Your task to perform on an android device: Open the Play Movies app and select the watchlist tab. Image 0: 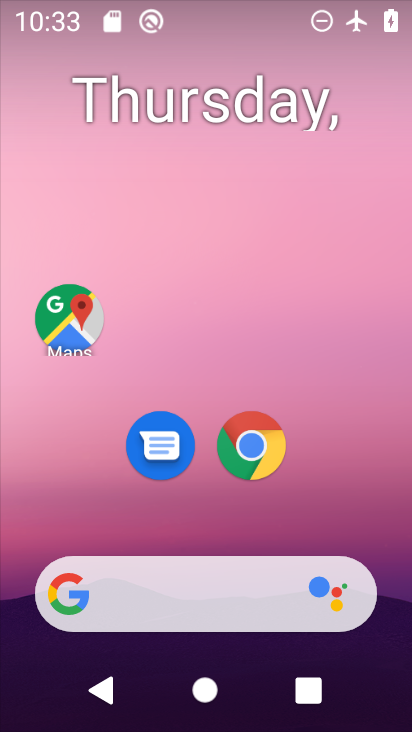
Step 0: drag from (201, 524) to (406, 8)
Your task to perform on an android device: Open the Play Movies app and select the watchlist tab. Image 1: 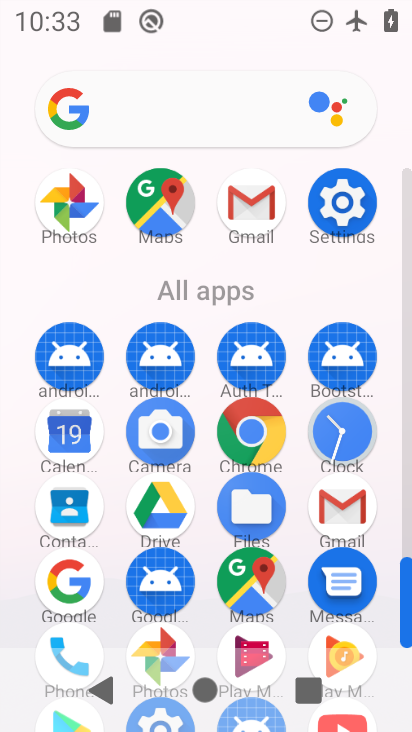
Step 1: drag from (209, 554) to (159, 225)
Your task to perform on an android device: Open the Play Movies app and select the watchlist tab. Image 2: 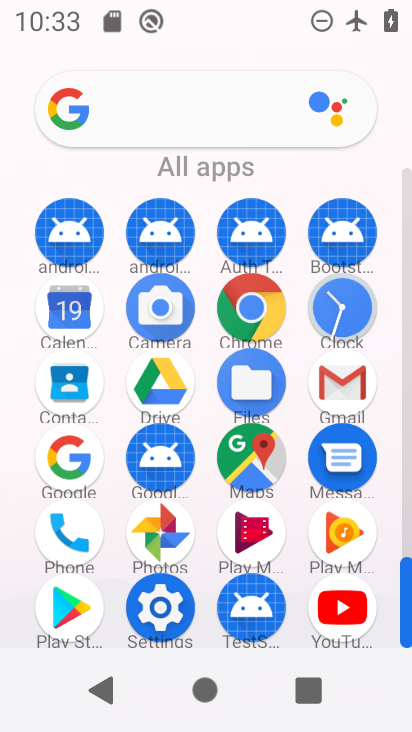
Step 2: click (242, 537)
Your task to perform on an android device: Open the Play Movies app and select the watchlist tab. Image 3: 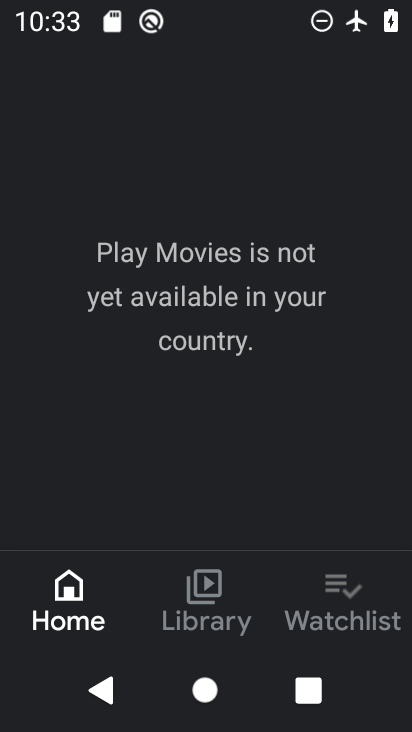
Step 3: click (355, 602)
Your task to perform on an android device: Open the Play Movies app and select the watchlist tab. Image 4: 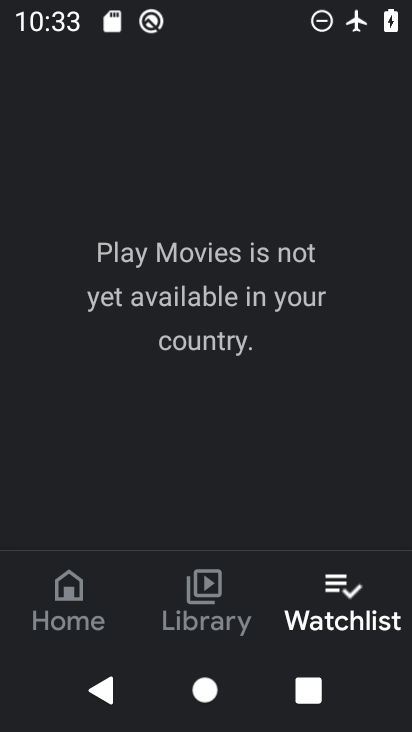
Step 4: task complete